Your task to perform on an android device: Open calendar and show me the first week of next month Image 0: 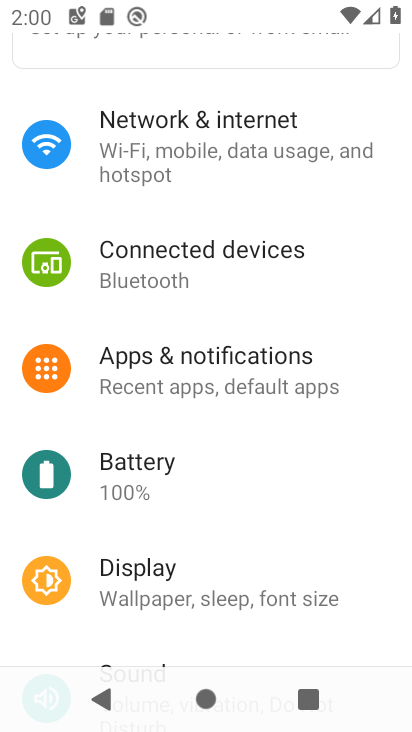
Step 0: press home button
Your task to perform on an android device: Open calendar and show me the first week of next month Image 1: 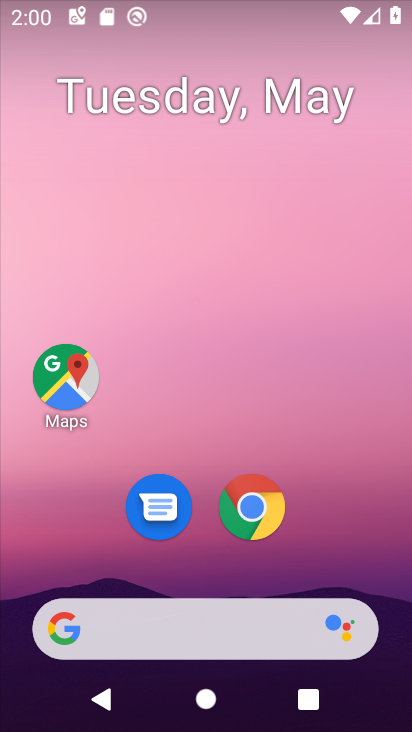
Step 1: drag from (217, 545) to (210, 251)
Your task to perform on an android device: Open calendar and show me the first week of next month Image 2: 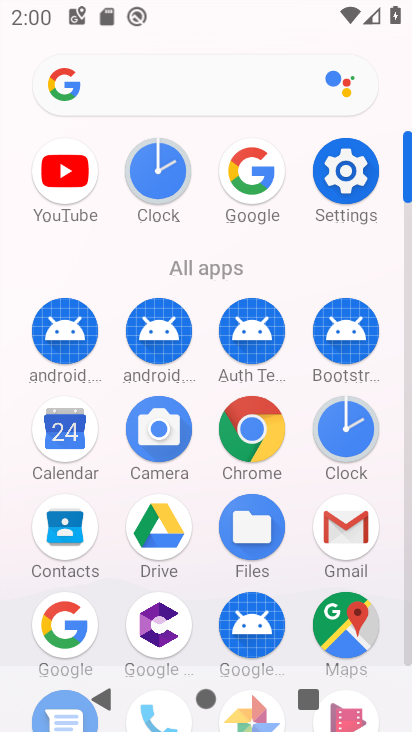
Step 2: click (78, 439)
Your task to perform on an android device: Open calendar and show me the first week of next month Image 3: 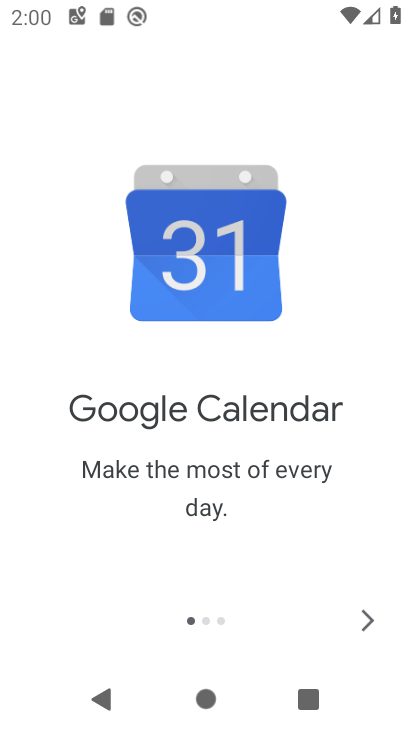
Step 3: click (361, 631)
Your task to perform on an android device: Open calendar and show me the first week of next month Image 4: 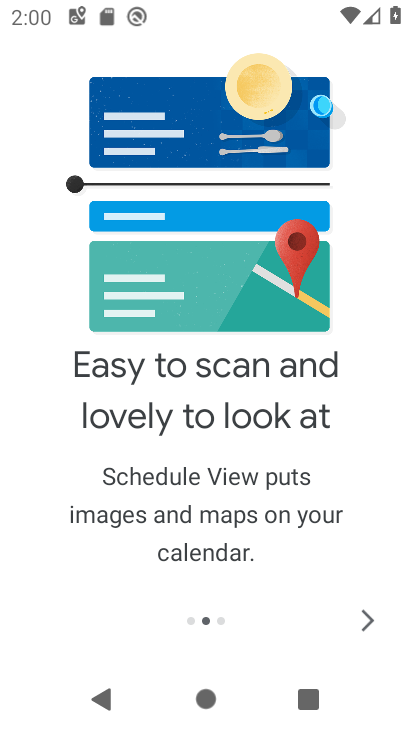
Step 4: click (361, 631)
Your task to perform on an android device: Open calendar and show me the first week of next month Image 5: 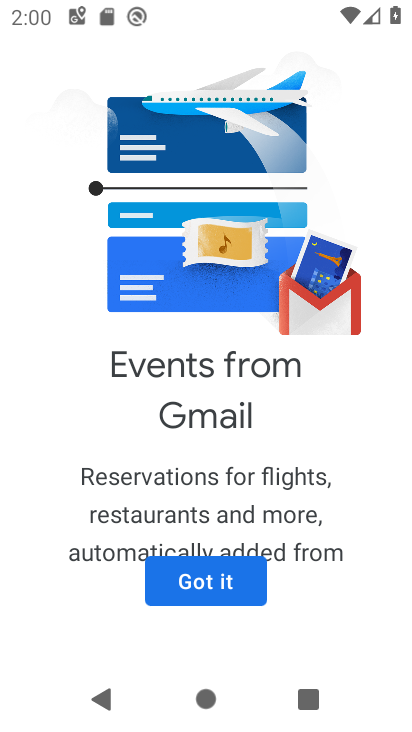
Step 5: click (361, 631)
Your task to perform on an android device: Open calendar and show me the first week of next month Image 6: 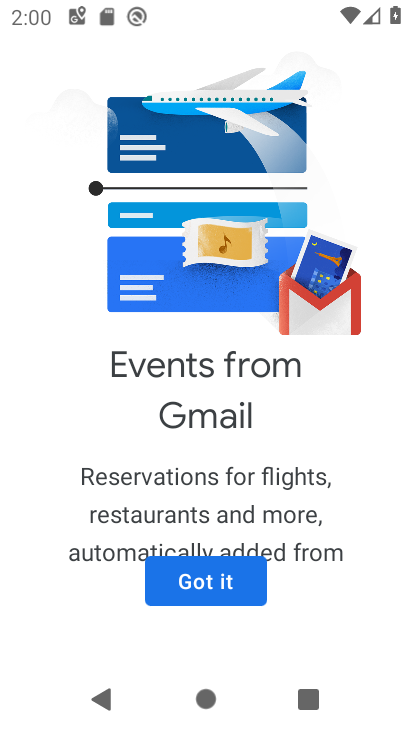
Step 6: click (206, 573)
Your task to perform on an android device: Open calendar and show me the first week of next month Image 7: 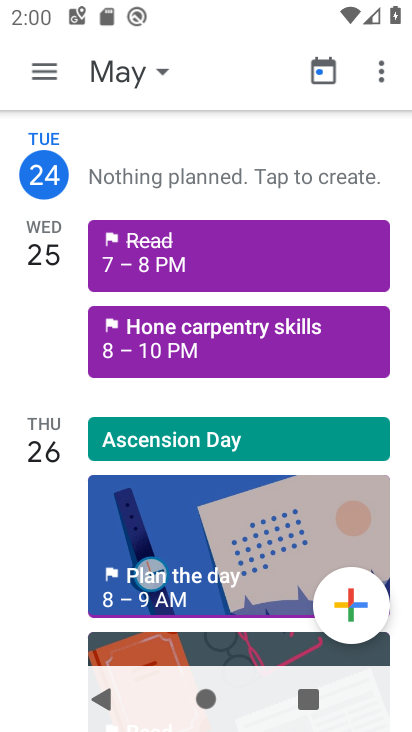
Step 7: click (153, 77)
Your task to perform on an android device: Open calendar and show me the first week of next month Image 8: 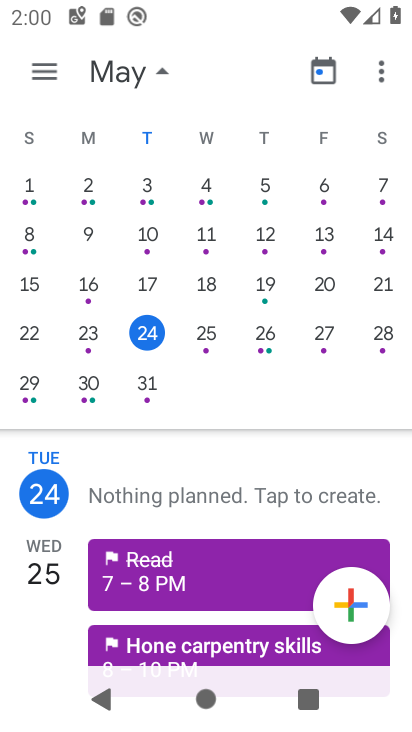
Step 8: drag from (341, 255) to (49, 246)
Your task to perform on an android device: Open calendar and show me the first week of next month Image 9: 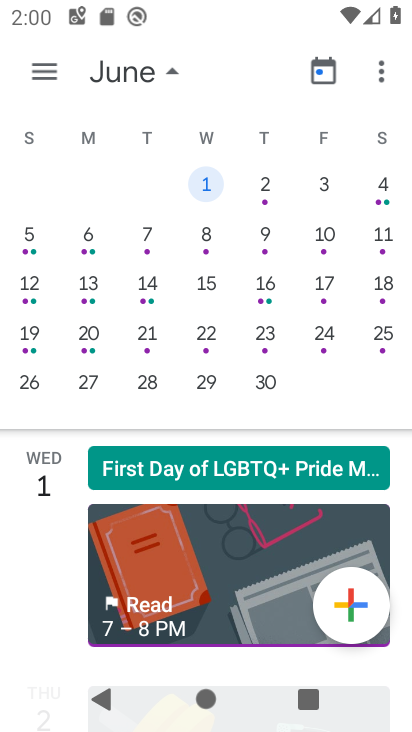
Step 9: click (197, 177)
Your task to perform on an android device: Open calendar and show me the first week of next month Image 10: 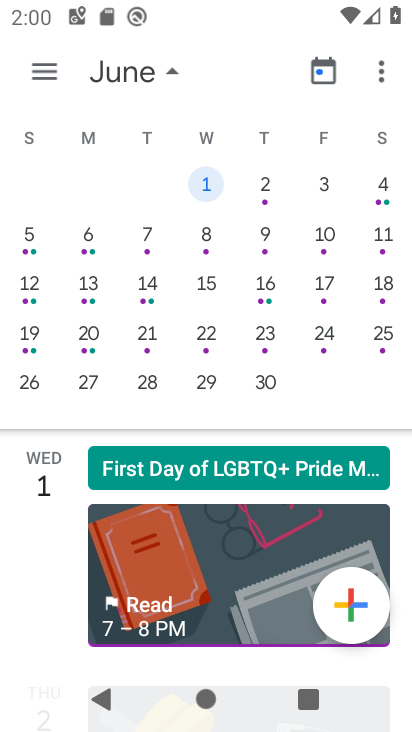
Step 10: click (201, 193)
Your task to perform on an android device: Open calendar and show me the first week of next month Image 11: 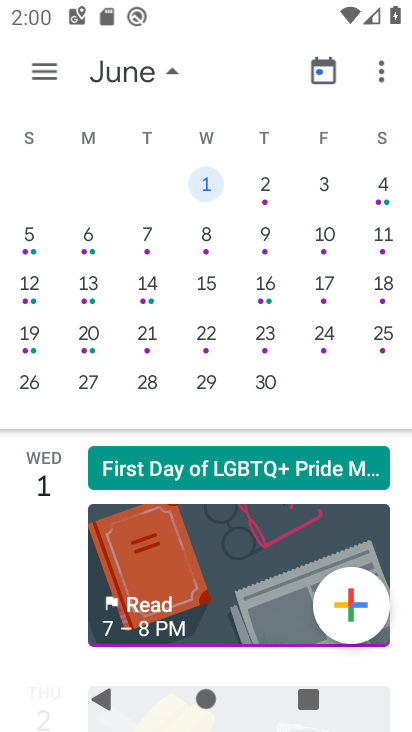
Step 11: task complete